Your task to perform on an android device: Go to Yahoo.com Image 0: 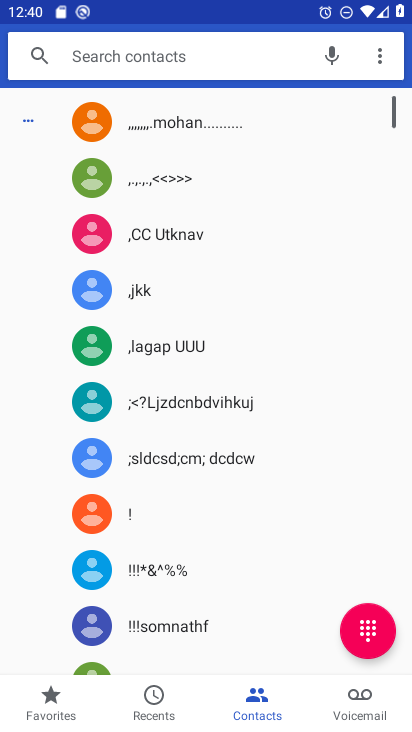
Step 0: press home button
Your task to perform on an android device: Go to Yahoo.com Image 1: 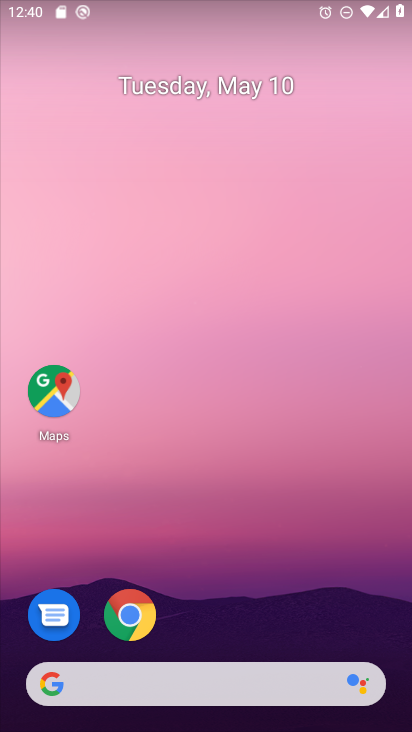
Step 1: drag from (290, 692) to (298, 90)
Your task to perform on an android device: Go to Yahoo.com Image 2: 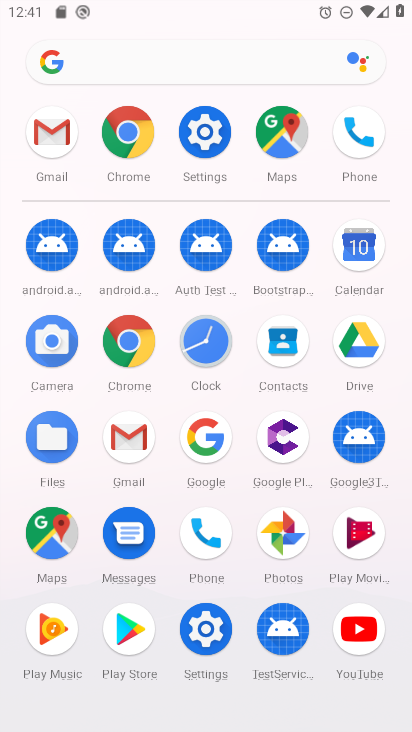
Step 2: click (124, 129)
Your task to perform on an android device: Go to Yahoo.com Image 3: 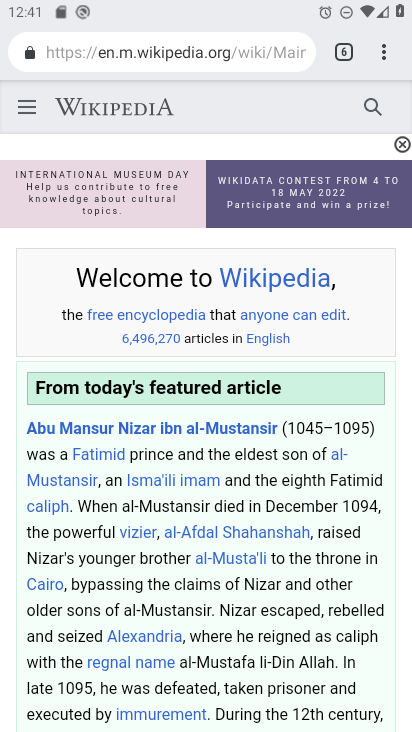
Step 3: click (336, 51)
Your task to perform on an android device: Go to Yahoo.com Image 4: 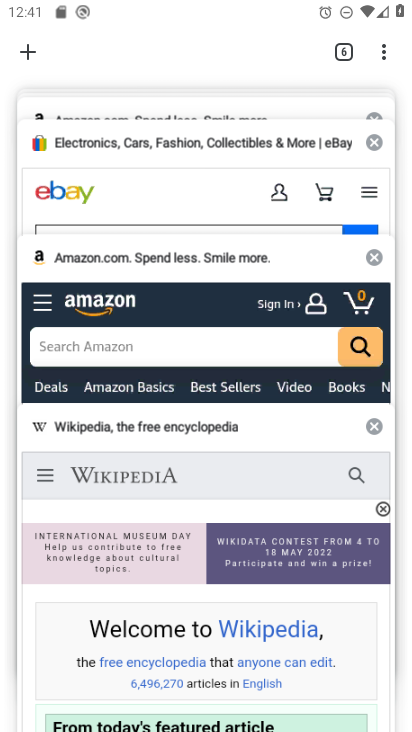
Step 4: click (27, 60)
Your task to perform on an android device: Go to Yahoo.com Image 5: 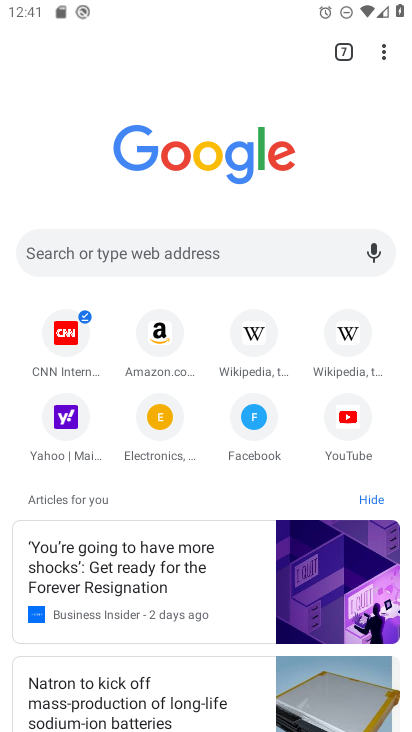
Step 5: click (58, 424)
Your task to perform on an android device: Go to Yahoo.com Image 6: 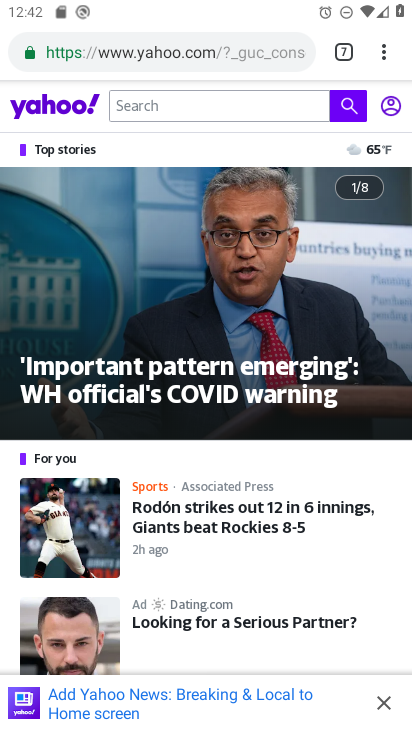
Step 6: task complete